Your task to perform on an android device: set the timer Image 0: 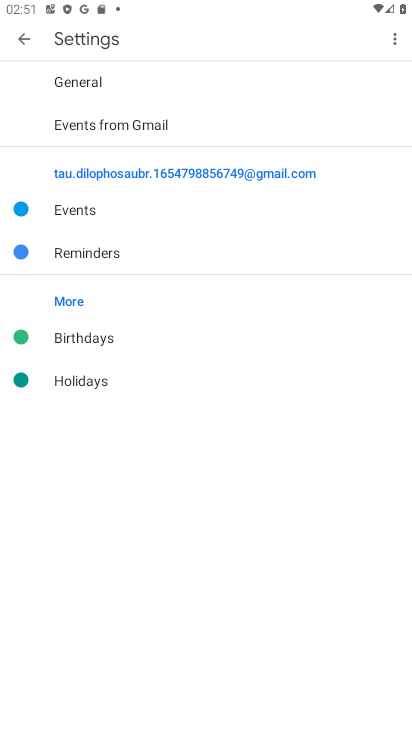
Step 0: press home button
Your task to perform on an android device: set the timer Image 1: 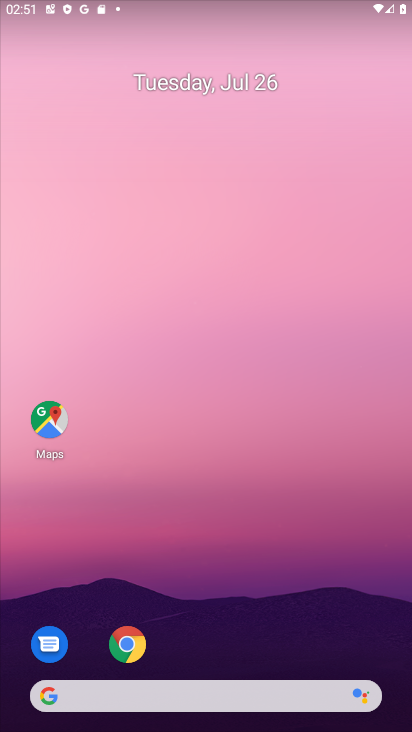
Step 1: drag from (185, 684) to (98, 106)
Your task to perform on an android device: set the timer Image 2: 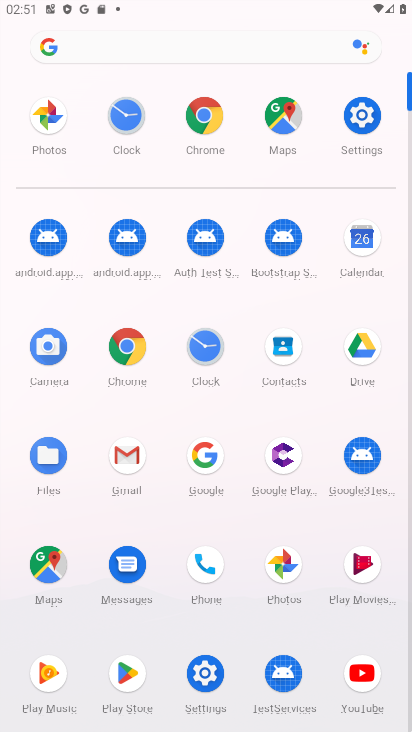
Step 2: click (212, 350)
Your task to perform on an android device: set the timer Image 3: 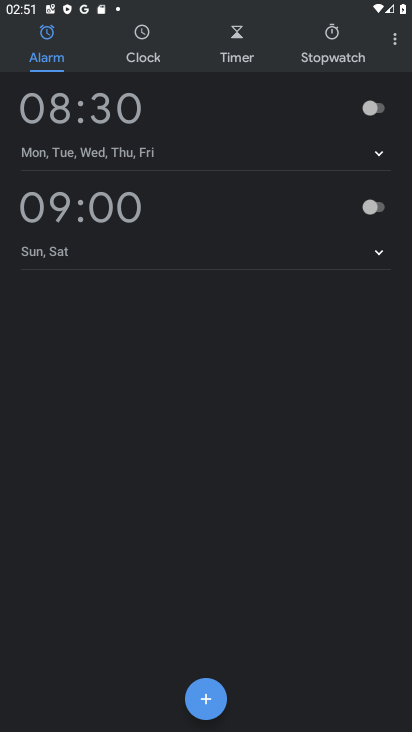
Step 3: click (209, 707)
Your task to perform on an android device: set the timer Image 4: 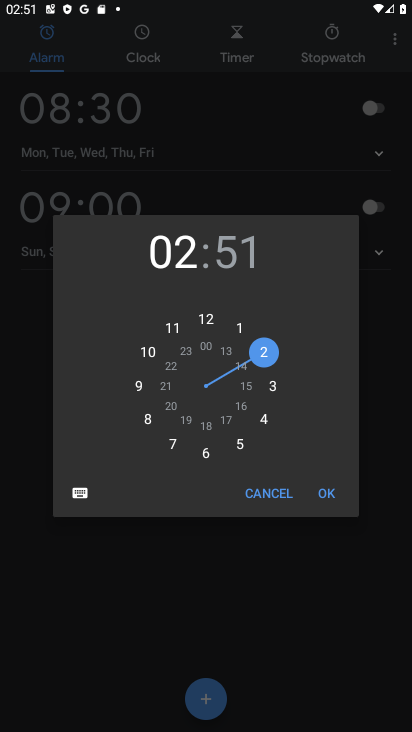
Step 4: click (319, 496)
Your task to perform on an android device: set the timer Image 5: 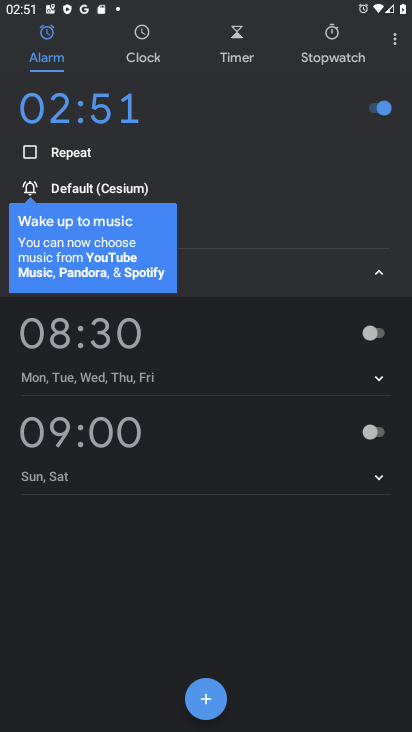
Step 5: task complete